Your task to perform on an android device: snooze an email in the gmail app Image 0: 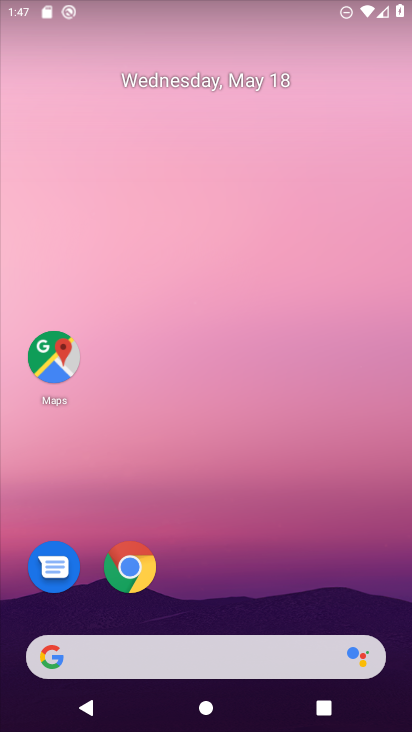
Step 0: drag from (207, 607) to (212, 170)
Your task to perform on an android device: snooze an email in the gmail app Image 1: 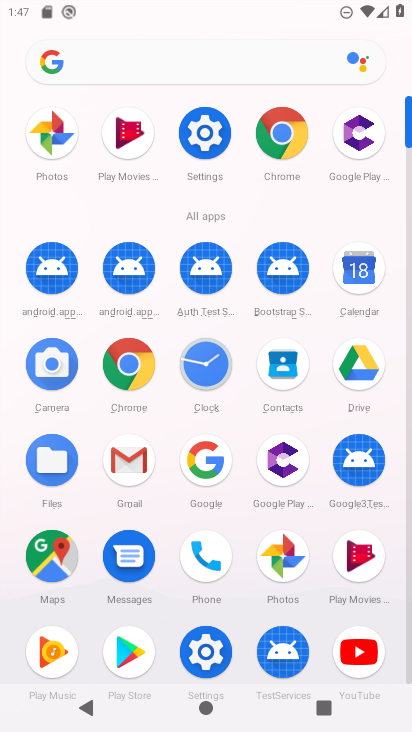
Step 1: click (142, 473)
Your task to perform on an android device: snooze an email in the gmail app Image 2: 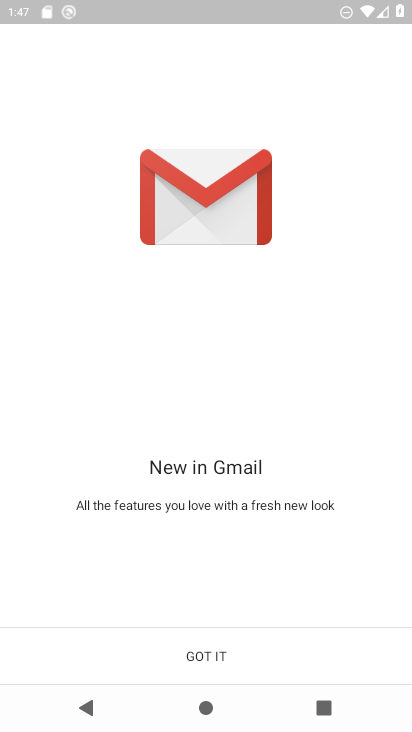
Step 2: click (241, 642)
Your task to perform on an android device: snooze an email in the gmail app Image 3: 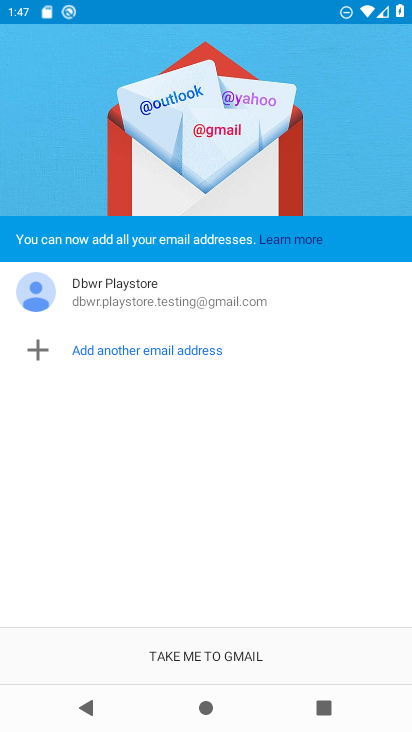
Step 3: click (241, 642)
Your task to perform on an android device: snooze an email in the gmail app Image 4: 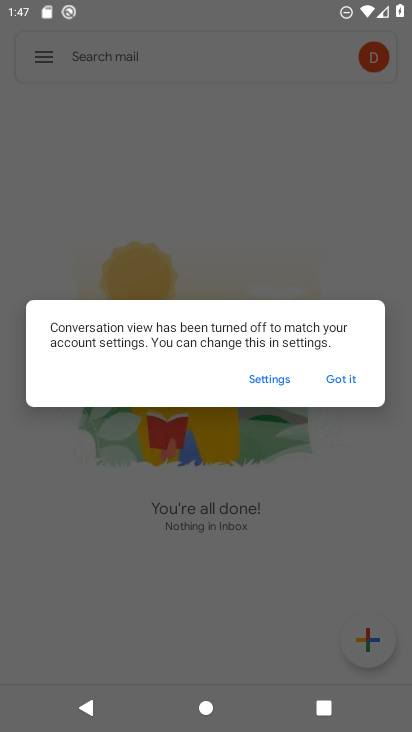
Step 4: click (324, 371)
Your task to perform on an android device: snooze an email in the gmail app Image 5: 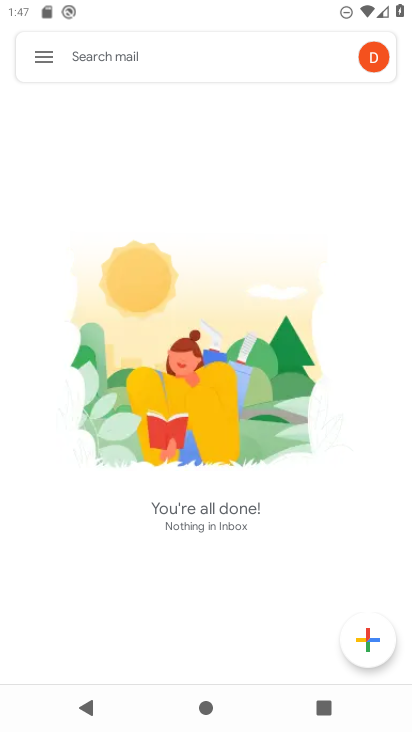
Step 5: task complete